Your task to perform on an android device: turn off priority inbox in the gmail app Image 0: 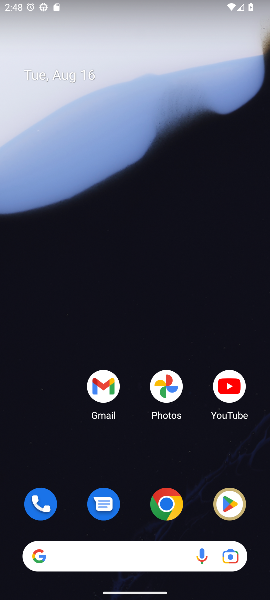
Step 0: click (99, 385)
Your task to perform on an android device: turn off priority inbox in the gmail app Image 1: 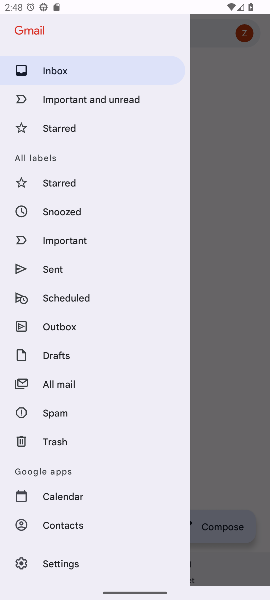
Step 1: drag from (136, 517) to (122, 231)
Your task to perform on an android device: turn off priority inbox in the gmail app Image 2: 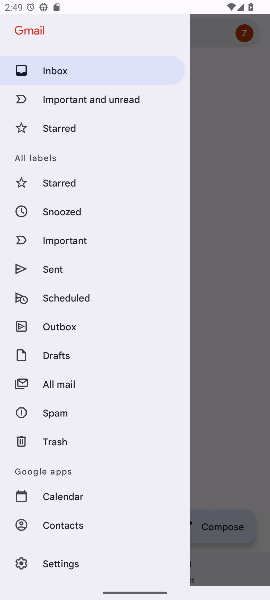
Step 2: click (58, 564)
Your task to perform on an android device: turn off priority inbox in the gmail app Image 3: 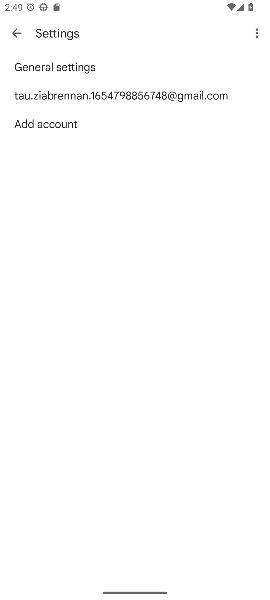
Step 3: click (70, 97)
Your task to perform on an android device: turn off priority inbox in the gmail app Image 4: 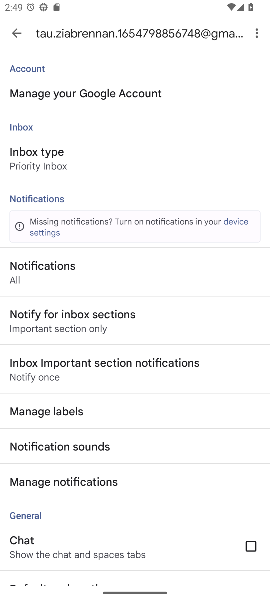
Step 4: click (27, 153)
Your task to perform on an android device: turn off priority inbox in the gmail app Image 5: 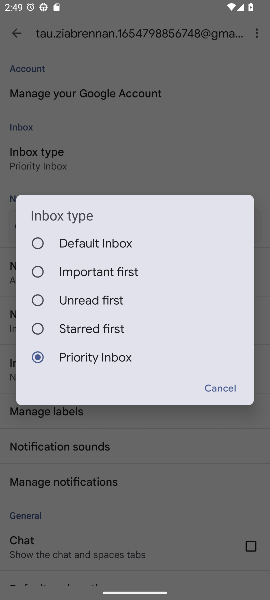
Step 5: click (37, 245)
Your task to perform on an android device: turn off priority inbox in the gmail app Image 6: 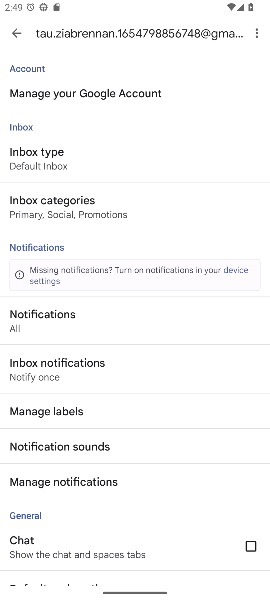
Step 6: task complete